Your task to perform on an android device: make emails show in primary in the gmail app Image 0: 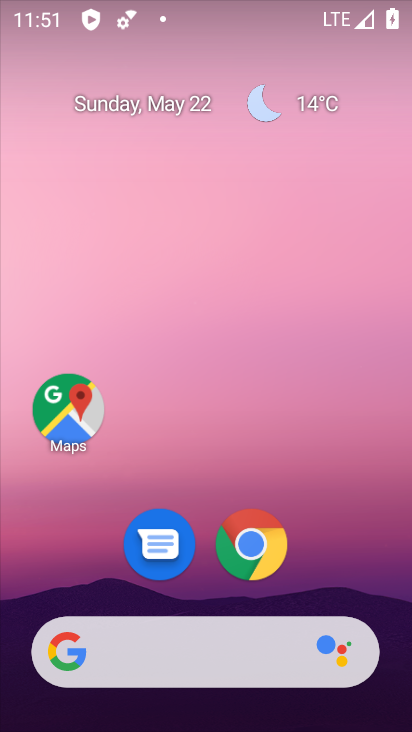
Step 0: drag from (315, 566) to (209, 18)
Your task to perform on an android device: make emails show in primary in the gmail app Image 1: 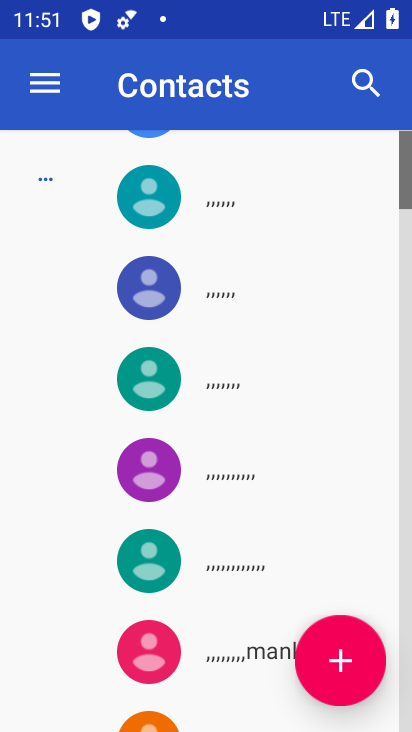
Step 1: press home button
Your task to perform on an android device: make emails show in primary in the gmail app Image 2: 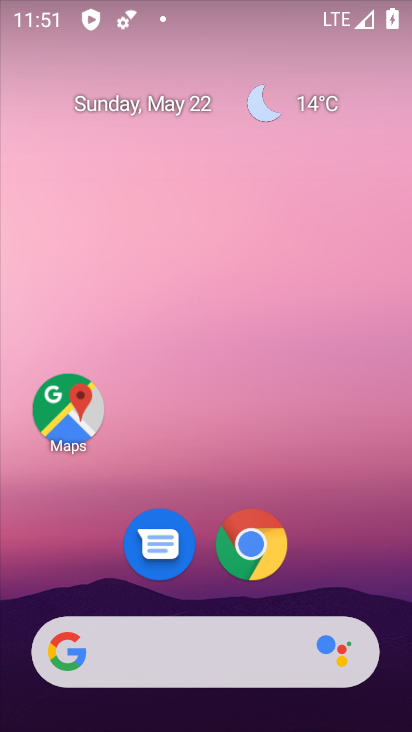
Step 2: drag from (210, 594) to (258, 130)
Your task to perform on an android device: make emails show in primary in the gmail app Image 3: 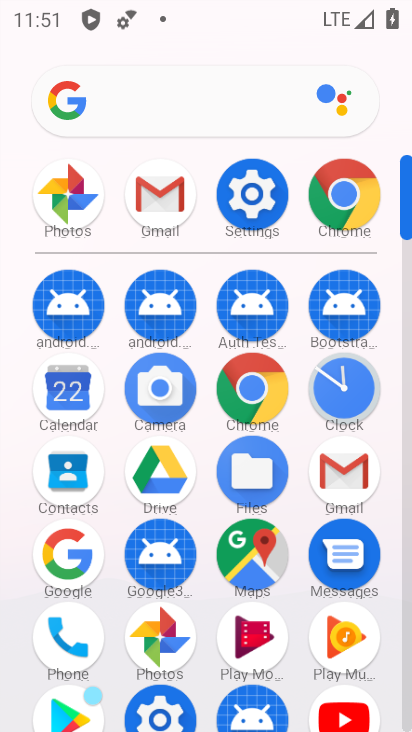
Step 3: click (162, 208)
Your task to perform on an android device: make emails show in primary in the gmail app Image 4: 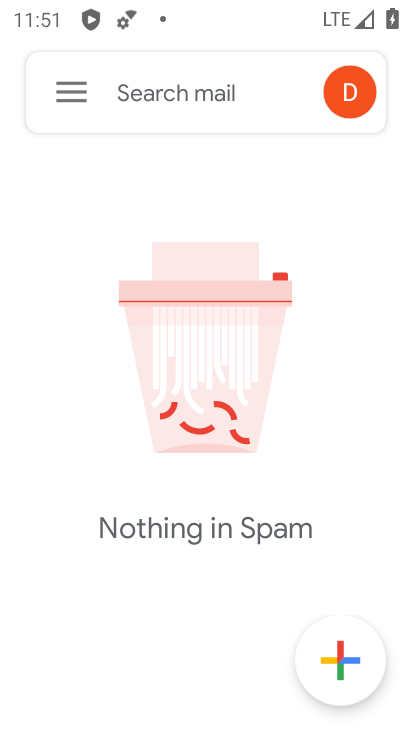
Step 4: click (63, 104)
Your task to perform on an android device: make emails show in primary in the gmail app Image 5: 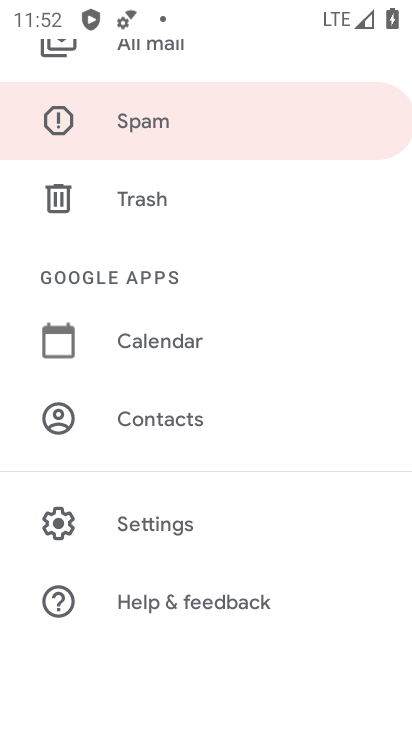
Step 5: click (152, 525)
Your task to perform on an android device: make emails show in primary in the gmail app Image 6: 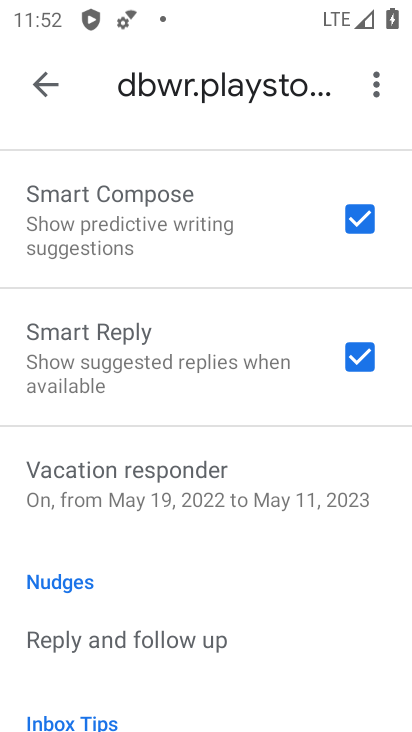
Step 6: drag from (157, 264) to (161, 627)
Your task to perform on an android device: make emails show in primary in the gmail app Image 7: 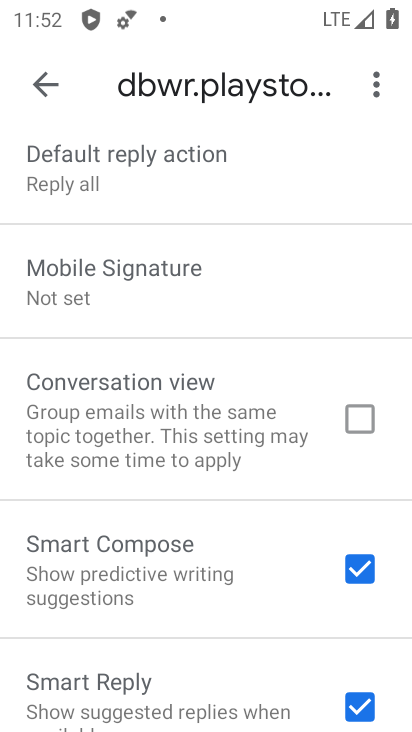
Step 7: drag from (164, 318) to (164, 653)
Your task to perform on an android device: make emails show in primary in the gmail app Image 8: 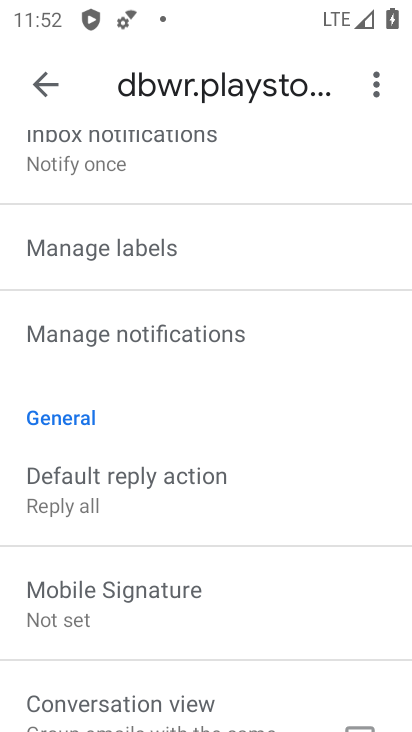
Step 8: drag from (187, 392) to (187, 682)
Your task to perform on an android device: make emails show in primary in the gmail app Image 9: 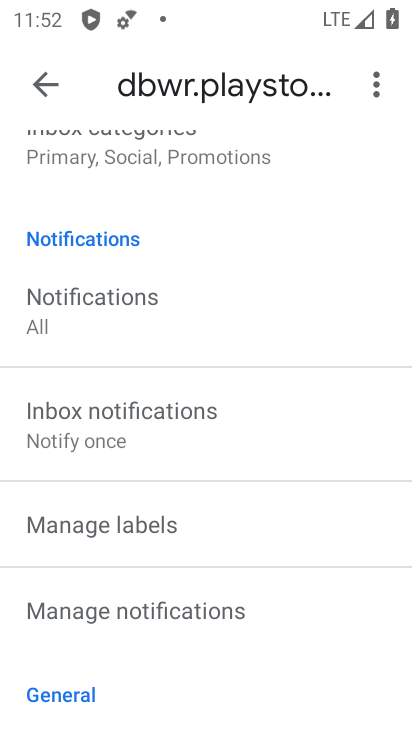
Step 9: drag from (178, 357) to (181, 663)
Your task to perform on an android device: make emails show in primary in the gmail app Image 10: 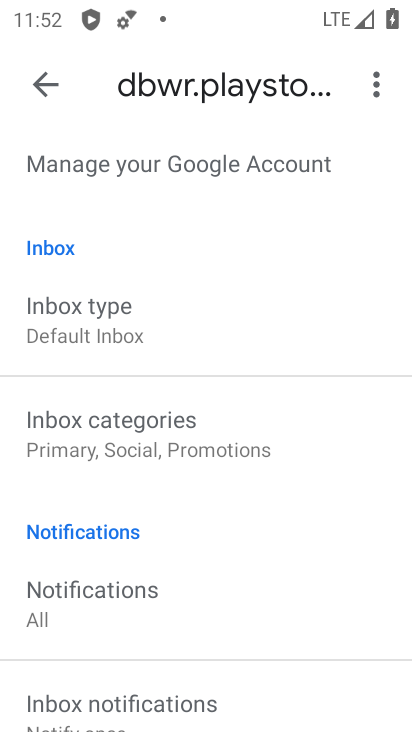
Step 10: drag from (152, 326) to (151, 613)
Your task to perform on an android device: make emails show in primary in the gmail app Image 11: 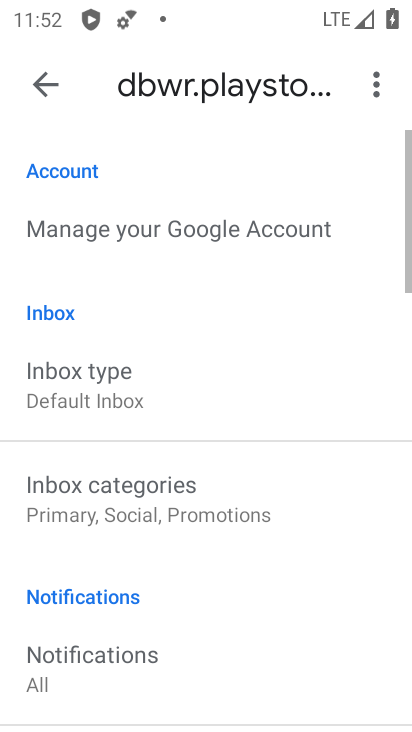
Step 11: click (92, 525)
Your task to perform on an android device: make emails show in primary in the gmail app Image 12: 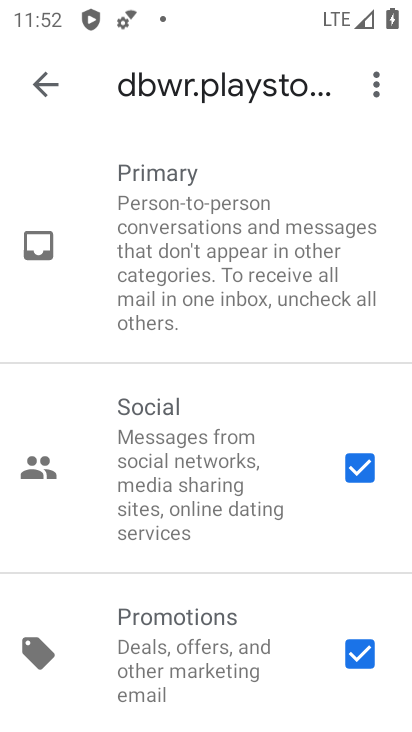
Step 12: click (364, 474)
Your task to perform on an android device: make emails show in primary in the gmail app Image 13: 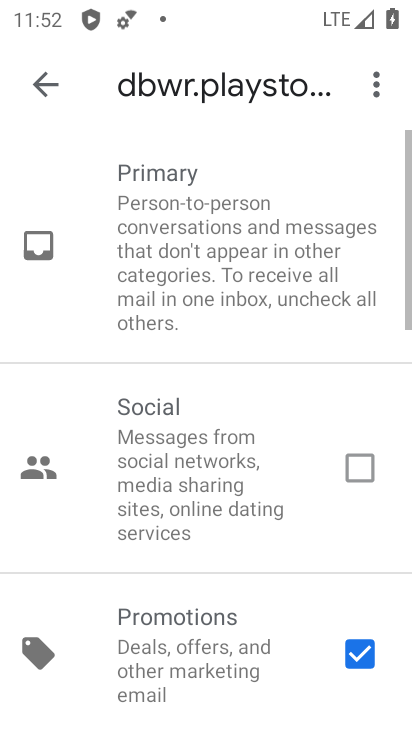
Step 13: click (356, 667)
Your task to perform on an android device: make emails show in primary in the gmail app Image 14: 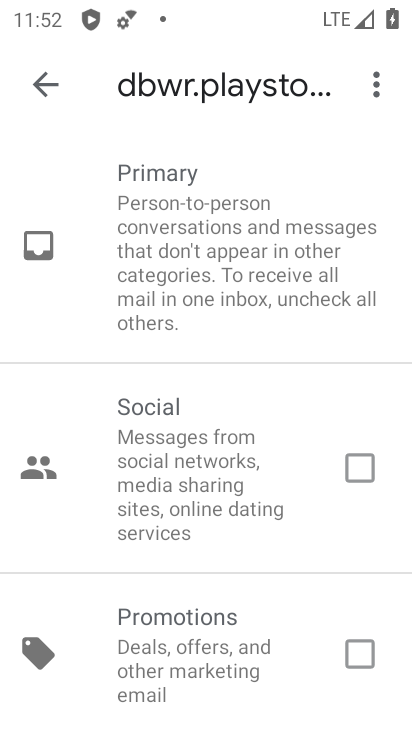
Step 14: task complete